Your task to perform on an android device: Open accessibility settings Image 0: 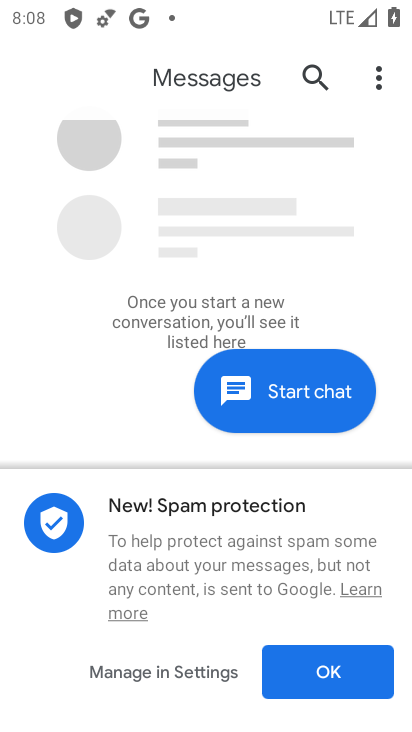
Step 0: press back button
Your task to perform on an android device: Open accessibility settings Image 1: 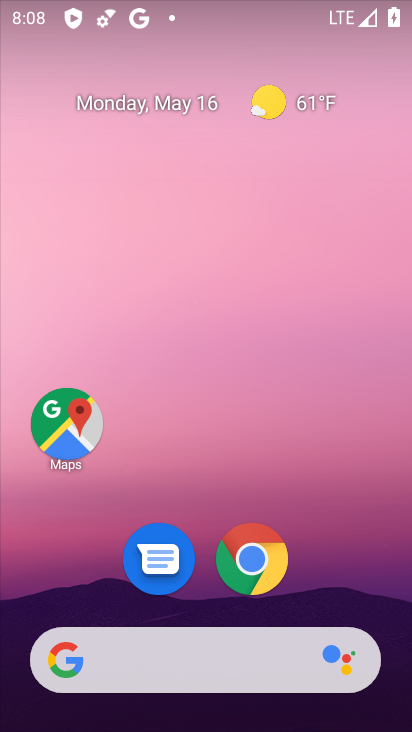
Step 1: drag from (212, 617) to (271, 19)
Your task to perform on an android device: Open accessibility settings Image 2: 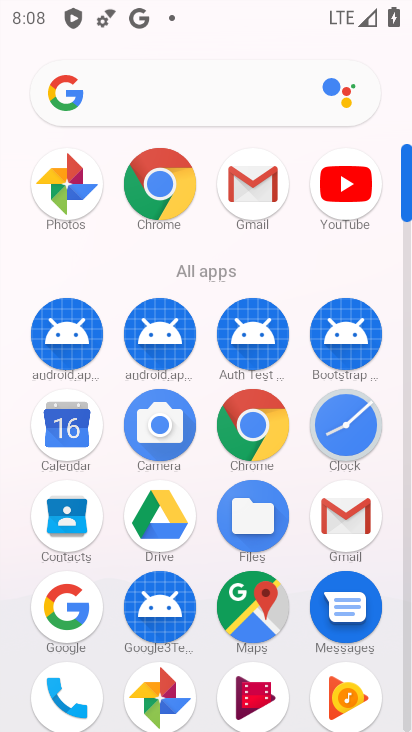
Step 2: drag from (173, 595) to (230, 95)
Your task to perform on an android device: Open accessibility settings Image 3: 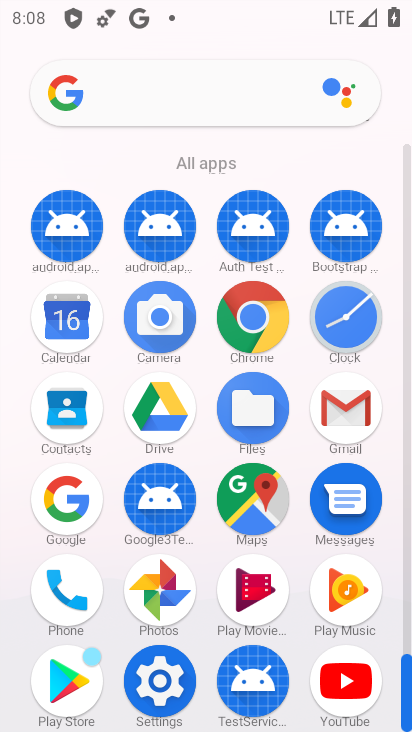
Step 3: click (156, 681)
Your task to perform on an android device: Open accessibility settings Image 4: 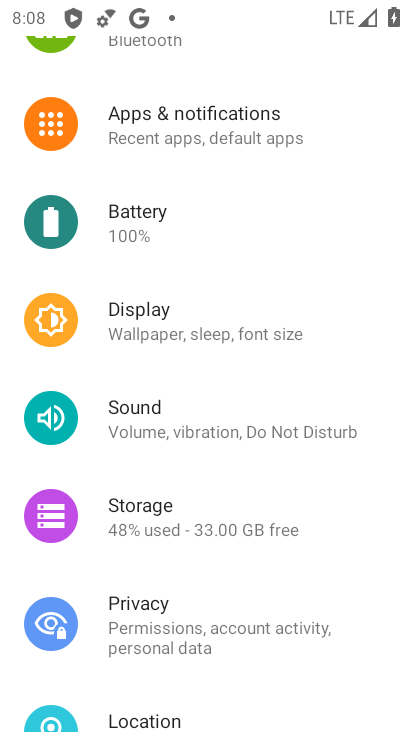
Step 4: drag from (178, 622) to (242, 122)
Your task to perform on an android device: Open accessibility settings Image 5: 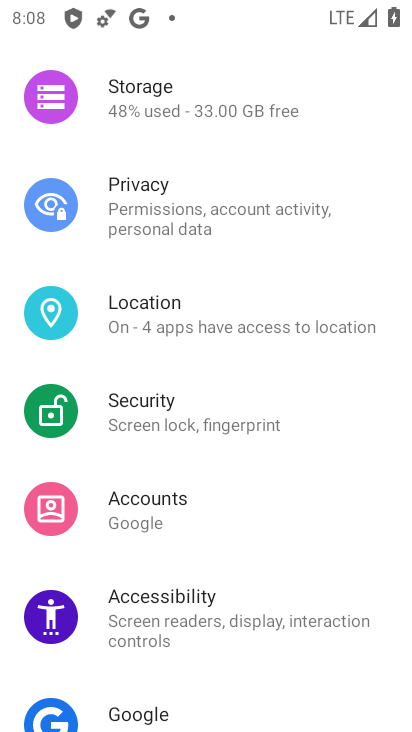
Step 5: click (164, 614)
Your task to perform on an android device: Open accessibility settings Image 6: 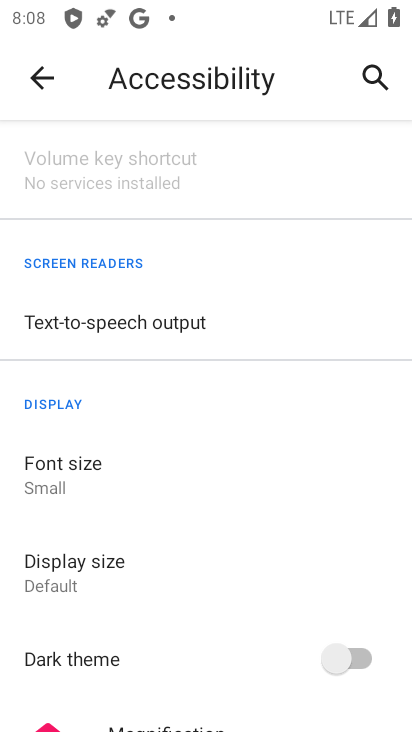
Step 6: task complete